Your task to perform on an android device: uninstall "Paramount+ | Peak Streaming" Image 0: 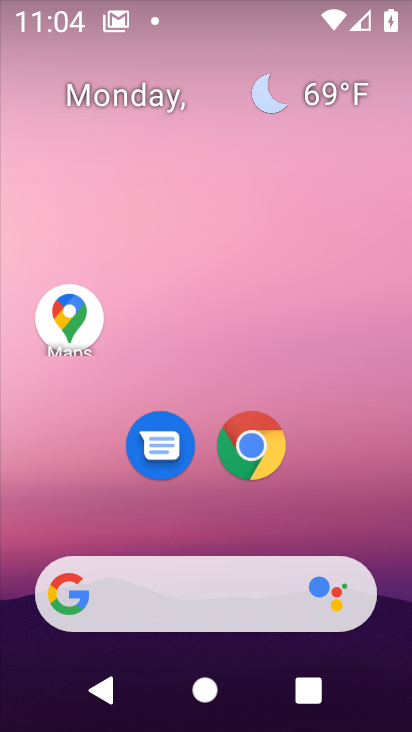
Step 0: drag from (261, 681) to (243, 191)
Your task to perform on an android device: uninstall "Paramount+ | Peak Streaming" Image 1: 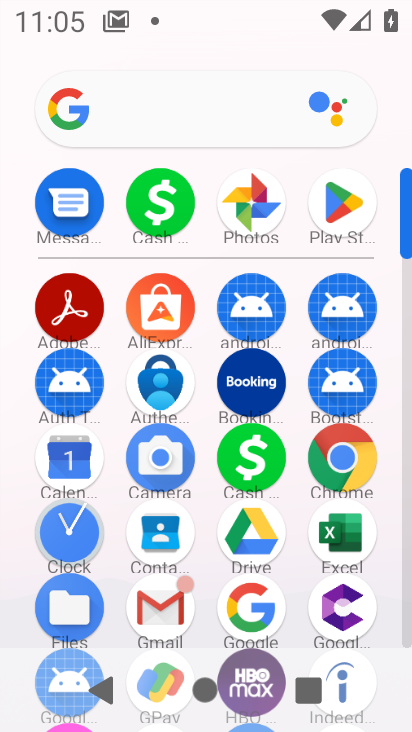
Step 1: click (360, 211)
Your task to perform on an android device: uninstall "Paramount+ | Peak Streaming" Image 2: 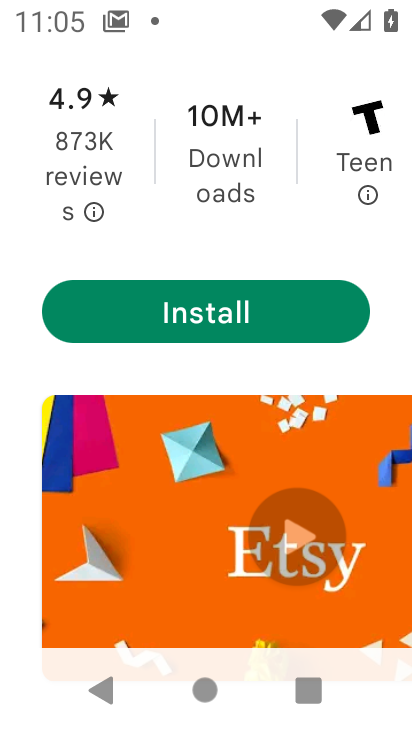
Step 2: drag from (157, 166) to (108, 638)
Your task to perform on an android device: uninstall "Paramount+ | Peak Streaming" Image 3: 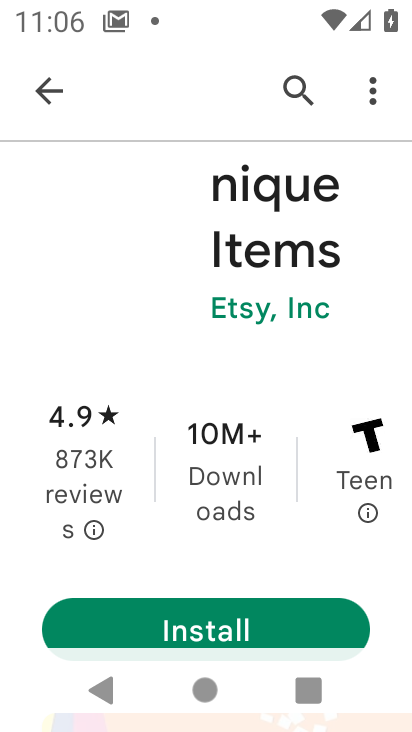
Step 3: click (44, 98)
Your task to perform on an android device: uninstall "Paramount+ | Peak Streaming" Image 4: 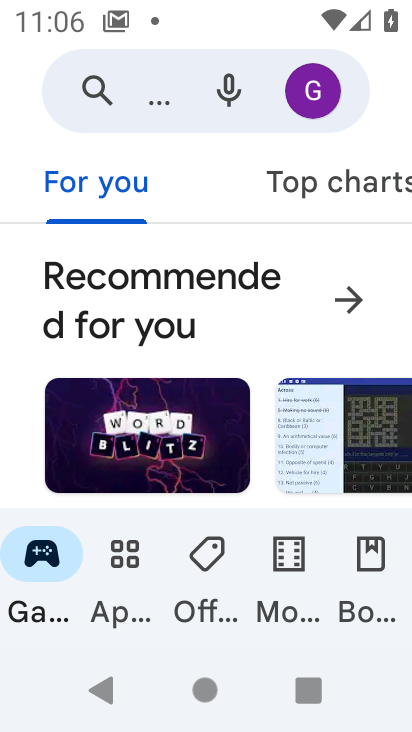
Step 4: click (95, 89)
Your task to perform on an android device: uninstall "Paramount+ | Peak Streaming" Image 5: 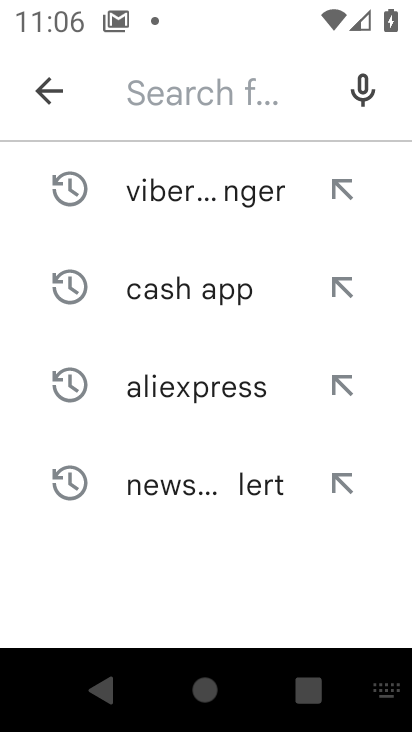
Step 5: type "Paramount+ | Peak Streaming"
Your task to perform on an android device: uninstall "Paramount+ | Peak Streaming" Image 6: 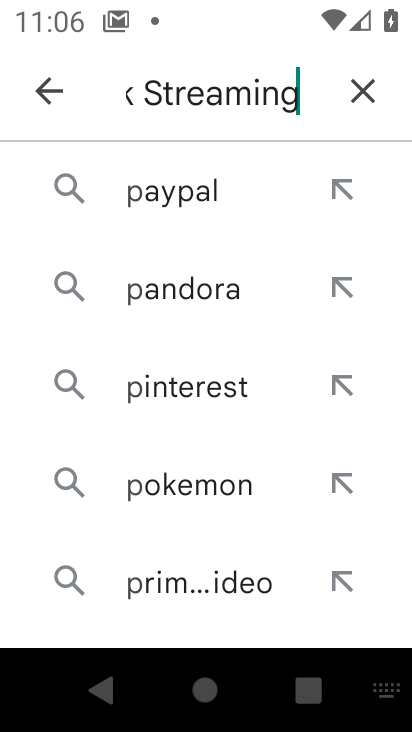
Step 6: type ""
Your task to perform on an android device: uninstall "Paramount+ | Peak Streaming" Image 7: 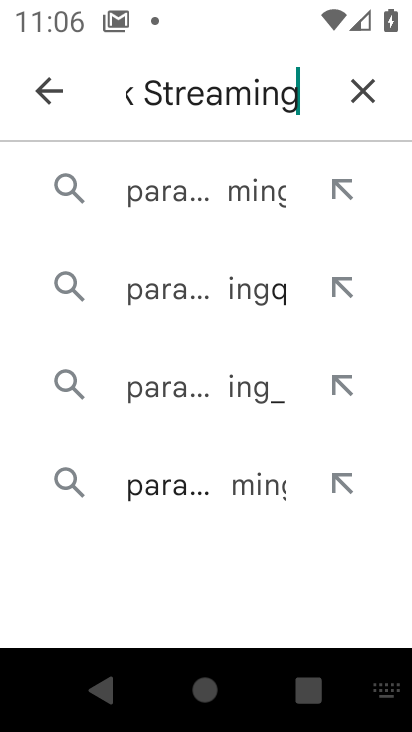
Step 7: click (223, 206)
Your task to perform on an android device: uninstall "Paramount+ | Peak Streaming" Image 8: 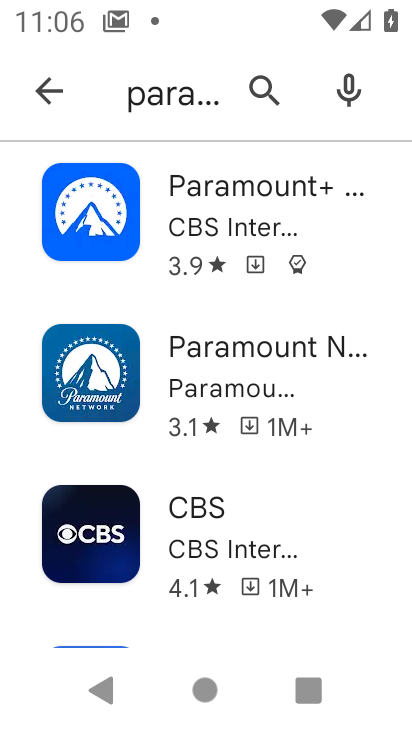
Step 8: click (268, 231)
Your task to perform on an android device: uninstall "Paramount+ | Peak Streaming" Image 9: 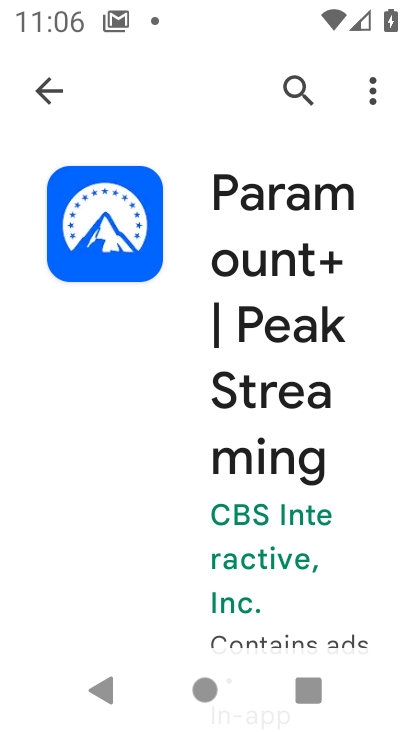
Step 9: drag from (172, 517) to (145, 65)
Your task to perform on an android device: uninstall "Paramount+ | Peak Streaming" Image 10: 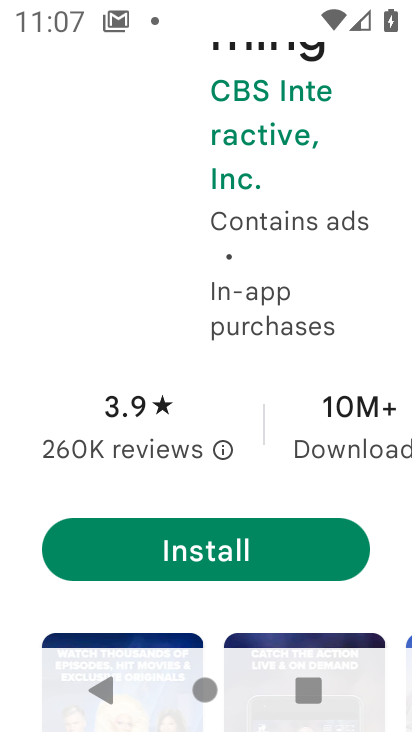
Step 10: click (182, 358)
Your task to perform on an android device: uninstall "Paramount+ | Peak Streaming" Image 11: 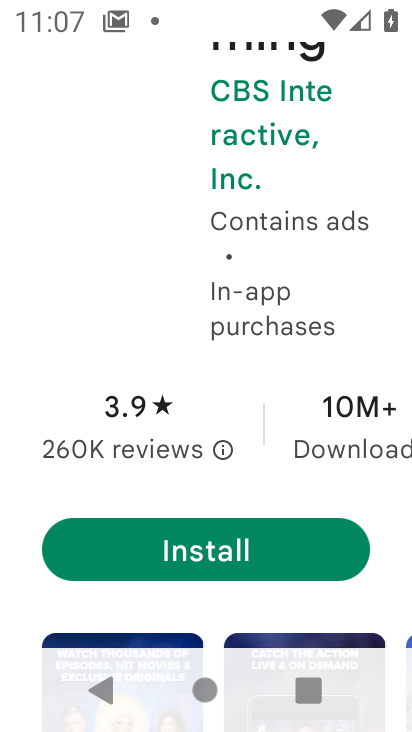
Step 11: task complete